Your task to perform on an android device: allow cookies in the chrome app Image 0: 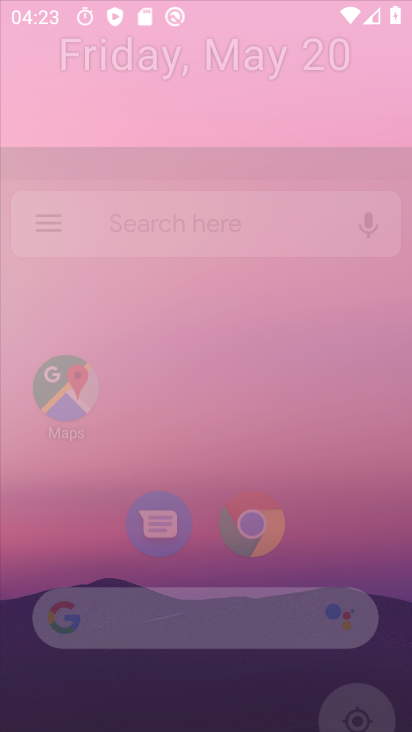
Step 0: drag from (308, 710) to (172, 41)
Your task to perform on an android device: allow cookies in the chrome app Image 1: 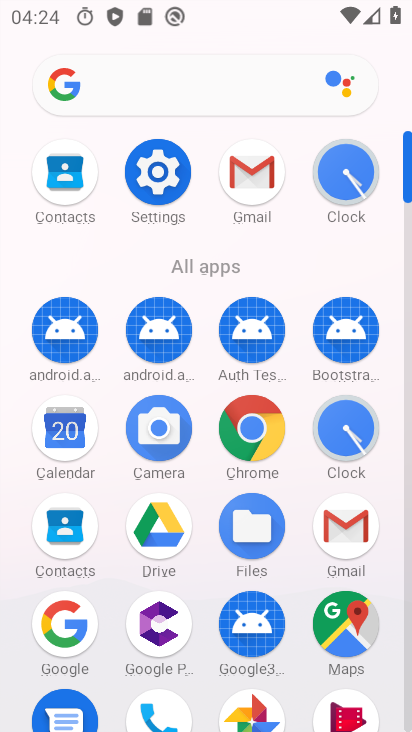
Step 1: click (259, 420)
Your task to perform on an android device: allow cookies in the chrome app Image 2: 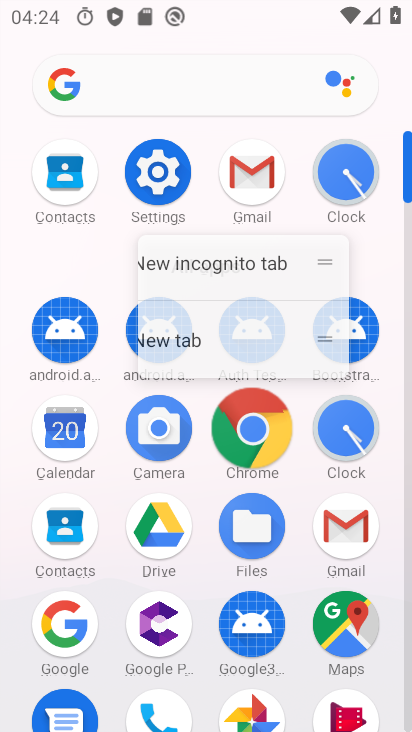
Step 2: click (251, 429)
Your task to perform on an android device: allow cookies in the chrome app Image 3: 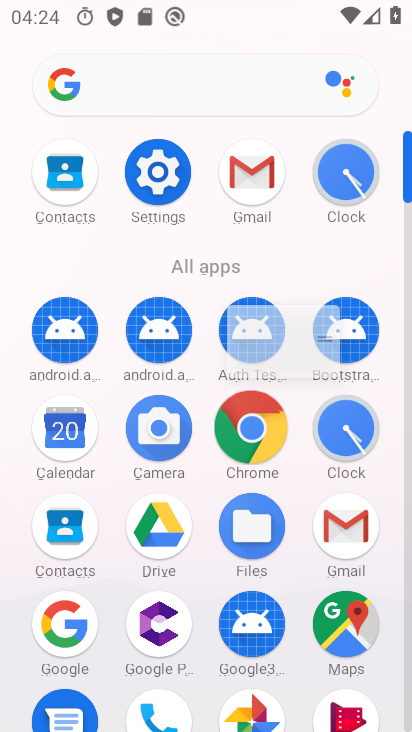
Step 3: click (249, 429)
Your task to perform on an android device: allow cookies in the chrome app Image 4: 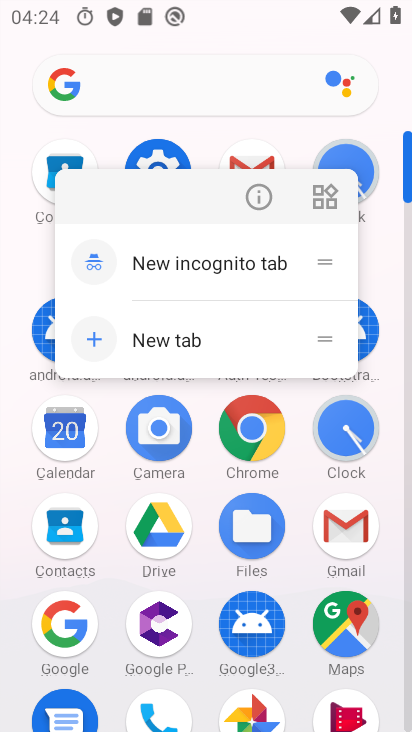
Step 4: click (260, 422)
Your task to perform on an android device: allow cookies in the chrome app Image 5: 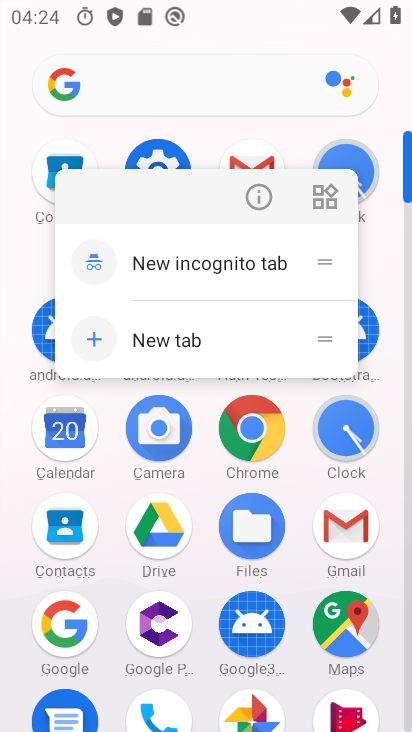
Step 5: click (262, 445)
Your task to perform on an android device: allow cookies in the chrome app Image 6: 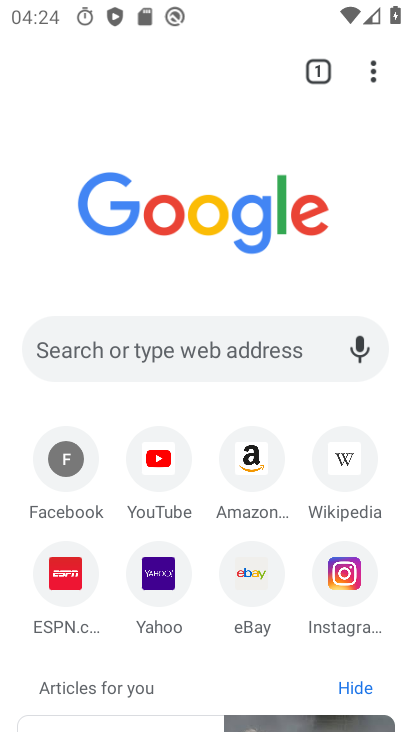
Step 6: click (369, 82)
Your task to perform on an android device: allow cookies in the chrome app Image 7: 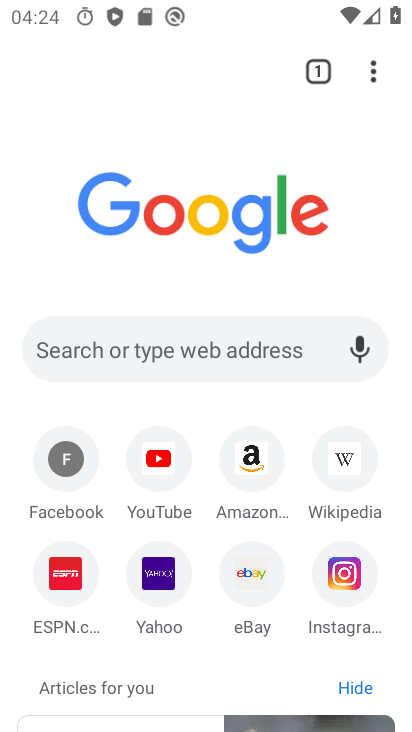
Step 7: click (368, 76)
Your task to perform on an android device: allow cookies in the chrome app Image 8: 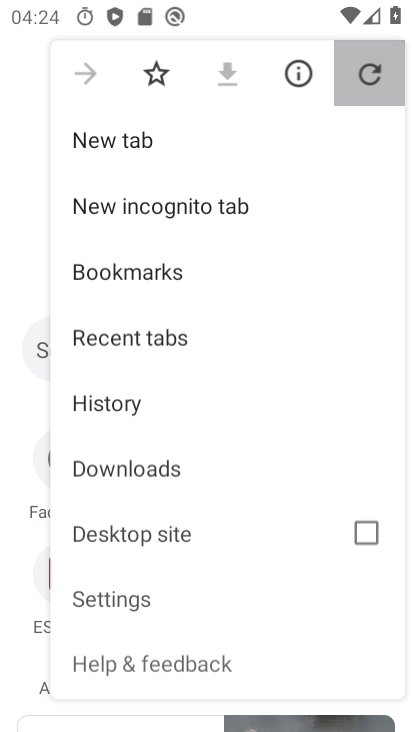
Step 8: click (369, 75)
Your task to perform on an android device: allow cookies in the chrome app Image 9: 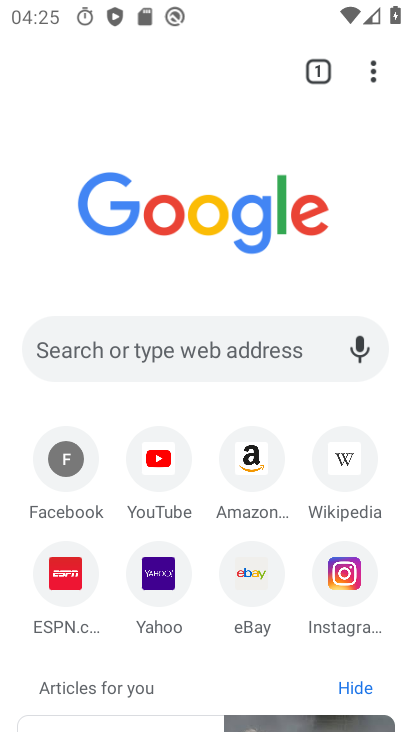
Step 9: click (373, 82)
Your task to perform on an android device: allow cookies in the chrome app Image 10: 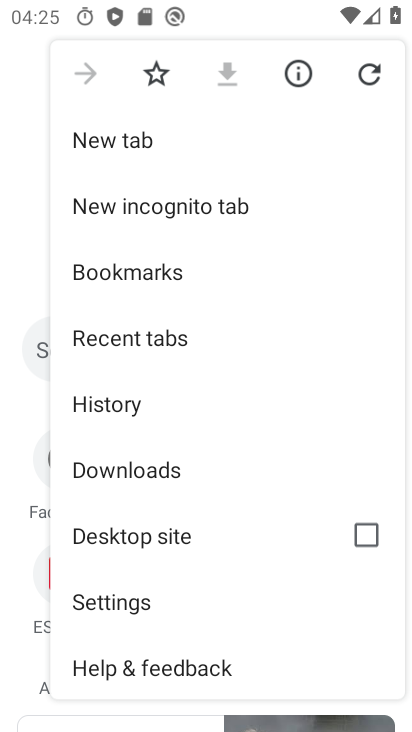
Step 10: click (129, 604)
Your task to perform on an android device: allow cookies in the chrome app Image 11: 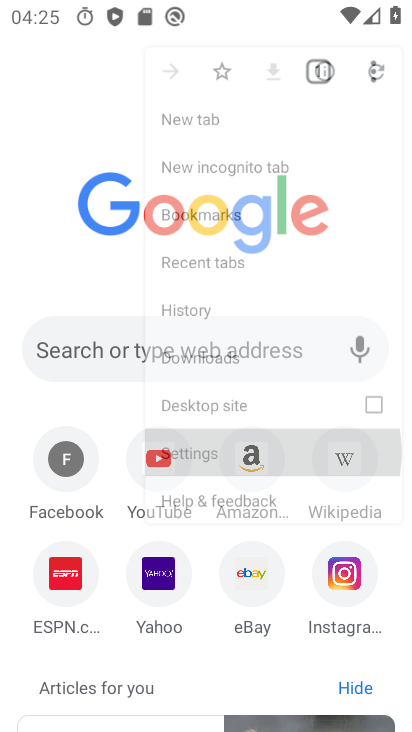
Step 11: click (122, 610)
Your task to perform on an android device: allow cookies in the chrome app Image 12: 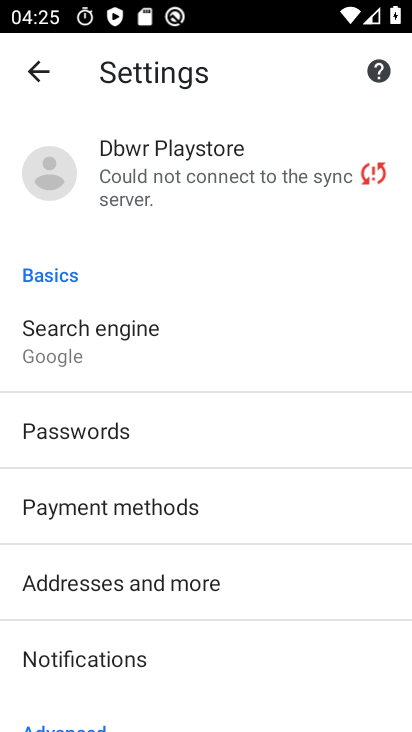
Step 12: drag from (145, 378) to (171, 43)
Your task to perform on an android device: allow cookies in the chrome app Image 13: 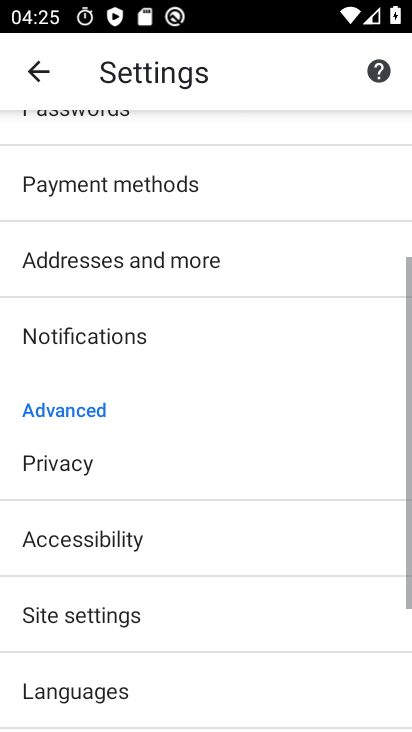
Step 13: drag from (136, 353) to (109, 17)
Your task to perform on an android device: allow cookies in the chrome app Image 14: 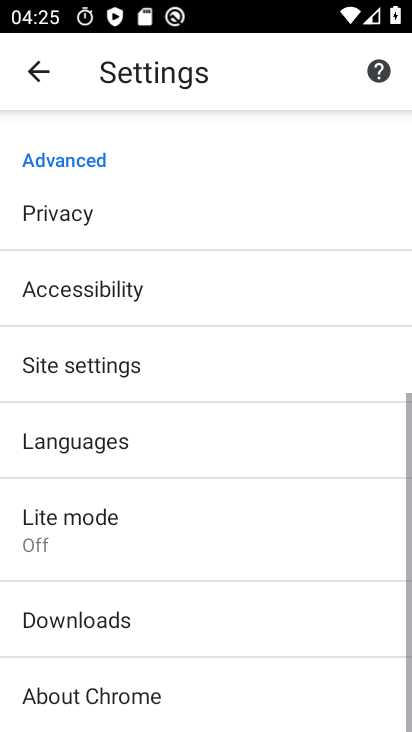
Step 14: drag from (121, 409) to (83, 142)
Your task to perform on an android device: allow cookies in the chrome app Image 15: 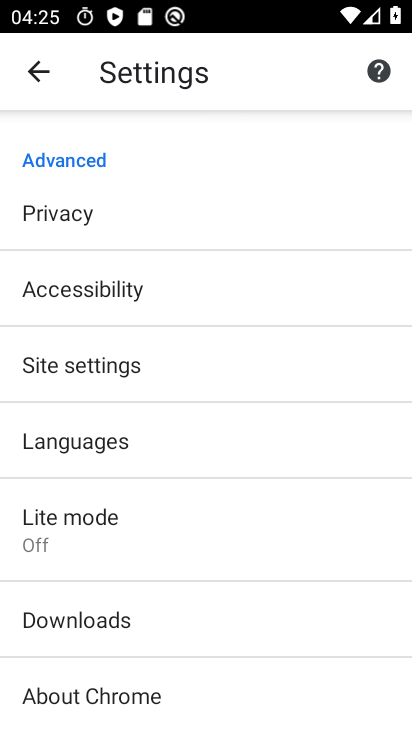
Step 15: click (78, 363)
Your task to perform on an android device: allow cookies in the chrome app Image 16: 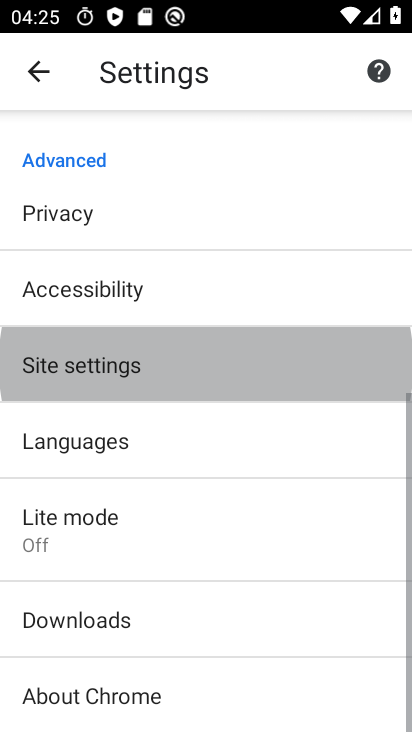
Step 16: click (78, 363)
Your task to perform on an android device: allow cookies in the chrome app Image 17: 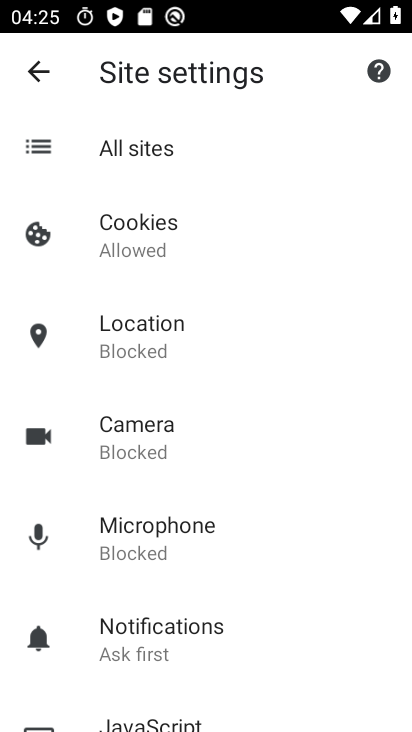
Step 17: click (132, 239)
Your task to perform on an android device: allow cookies in the chrome app Image 18: 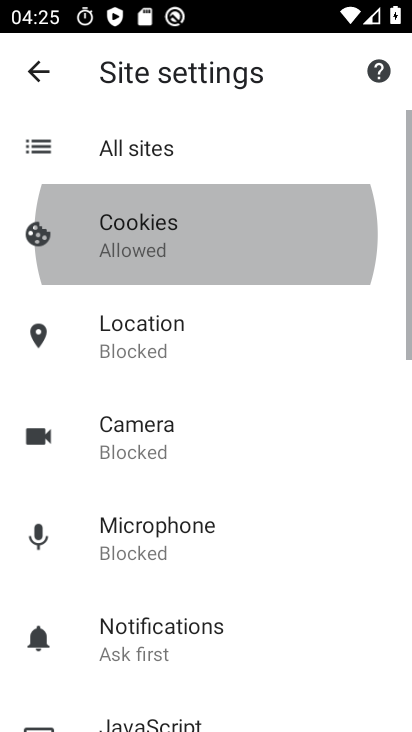
Step 18: click (135, 237)
Your task to perform on an android device: allow cookies in the chrome app Image 19: 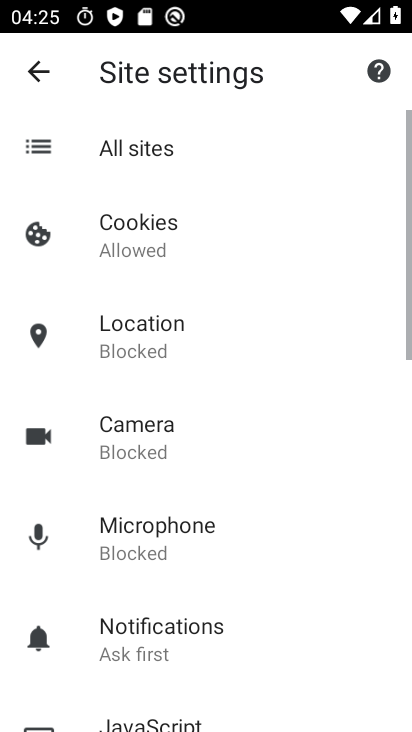
Step 19: click (135, 237)
Your task to perform on an android device: allow cookies in the chrome app Image 20: 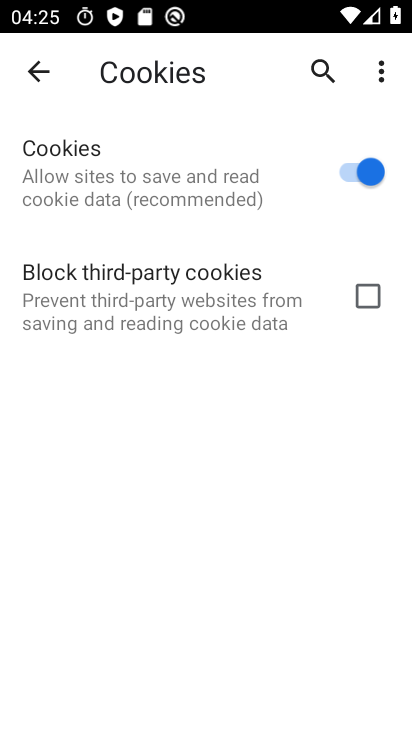
Step 20: click (373, 170)
Your task to perform on an android device: allow cookies in the chrome app Image 21: 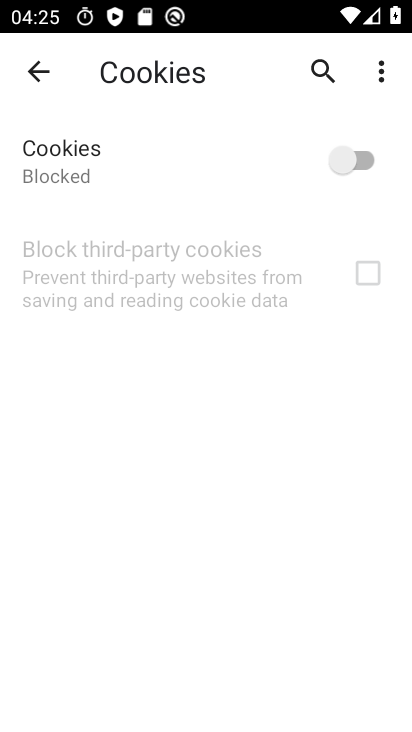
Step 21: click (346, 162)
Your task to perform on an android device: allow cookies in the chrome app Image 22: 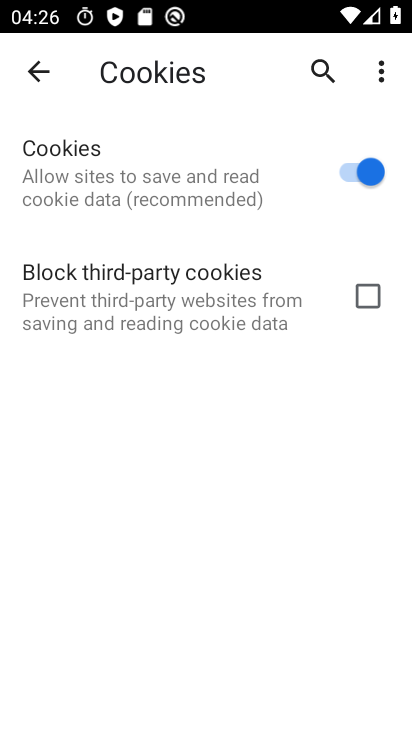
Step 22: task complete